Your task to perform on an android device: Go to battery settings Image 0: 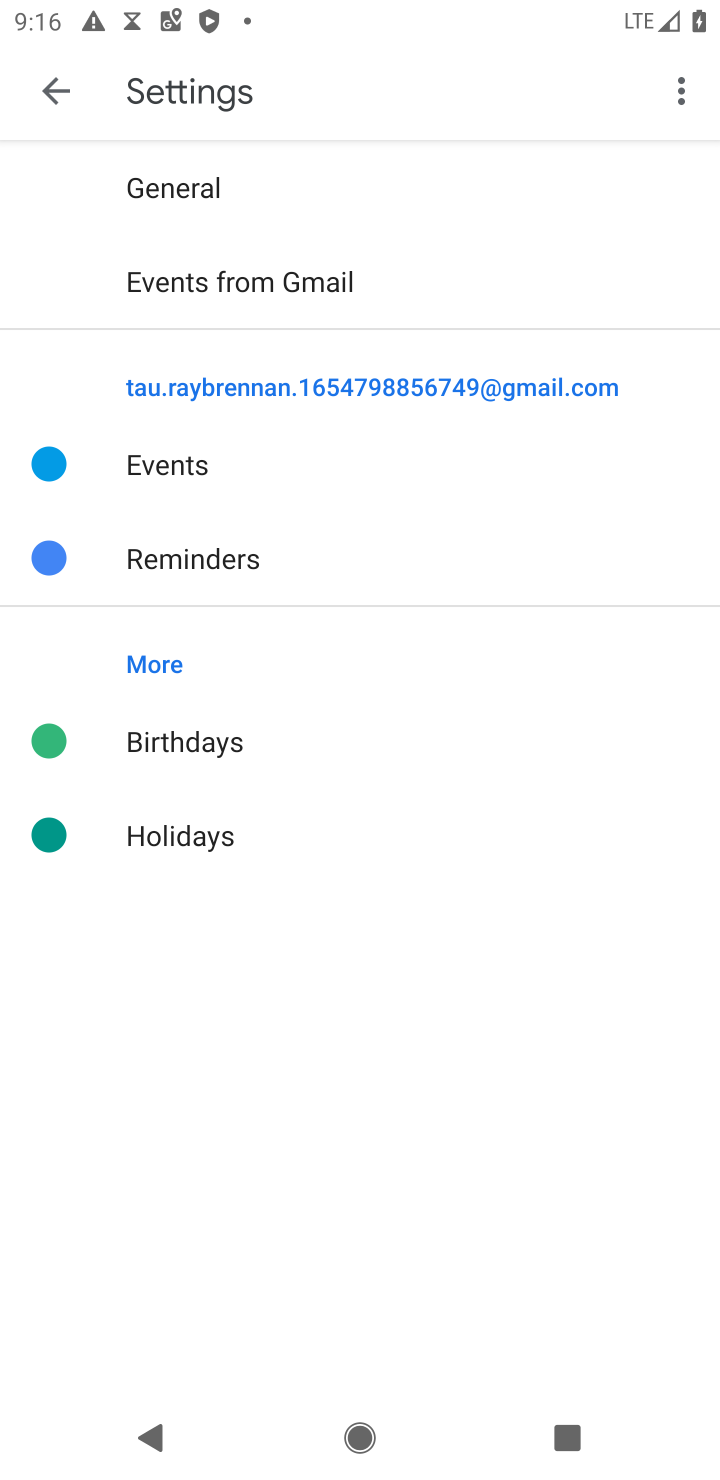
Step 0: press back button
Your task to perform on an android device: Go to battery settings Image 1: 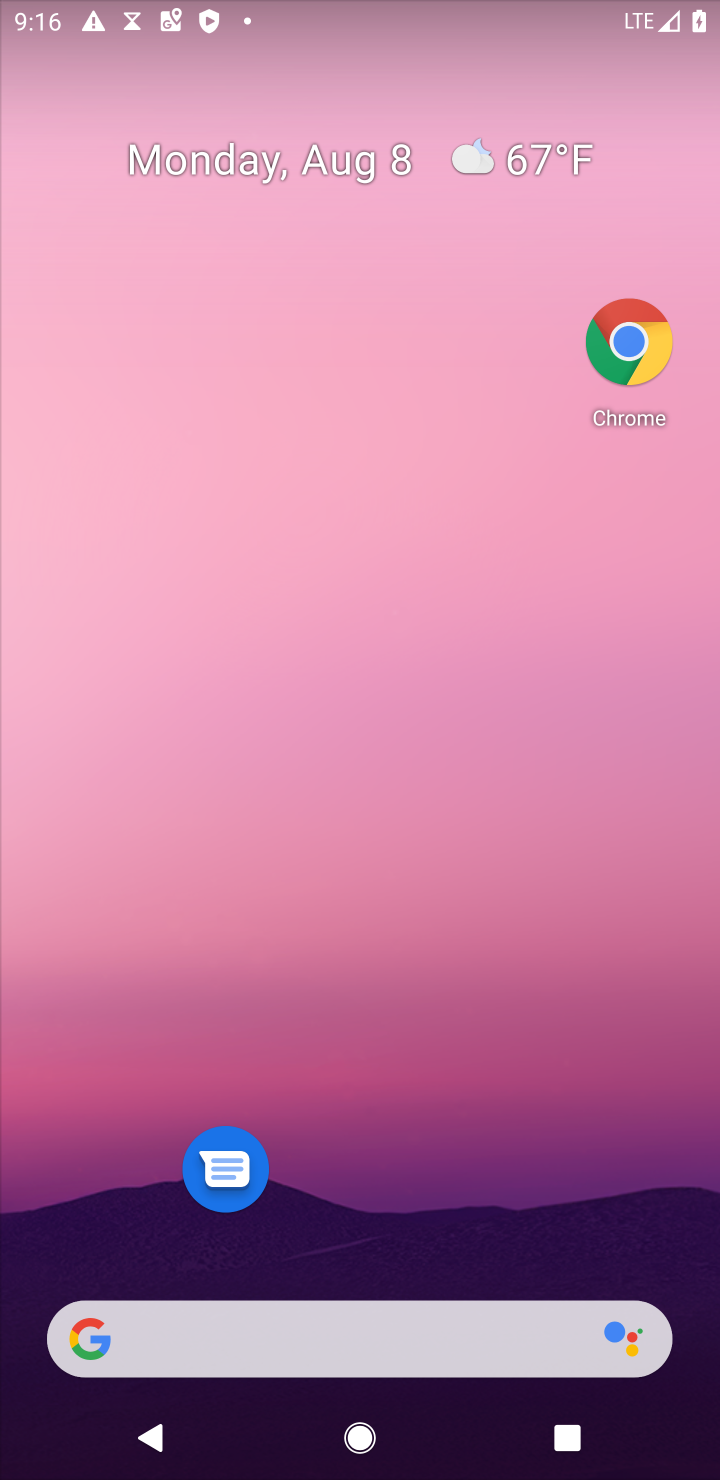
Step 1: drag from (394, 1045) to (463, 89)
Your task to perform on an android device: Go to battery settings Image 2: 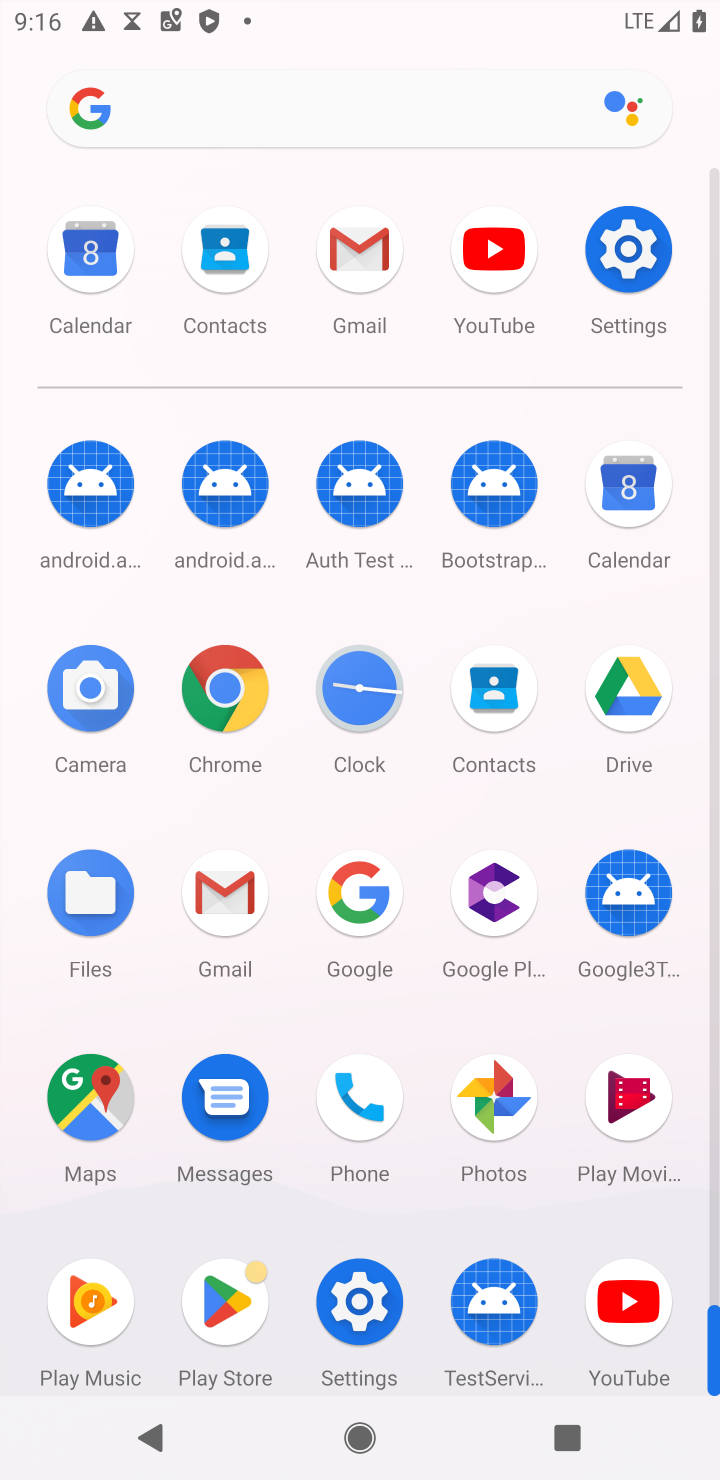
Step 2: click (656, 242)
Your task to perform on an android device: Go to battery settings Image 3: 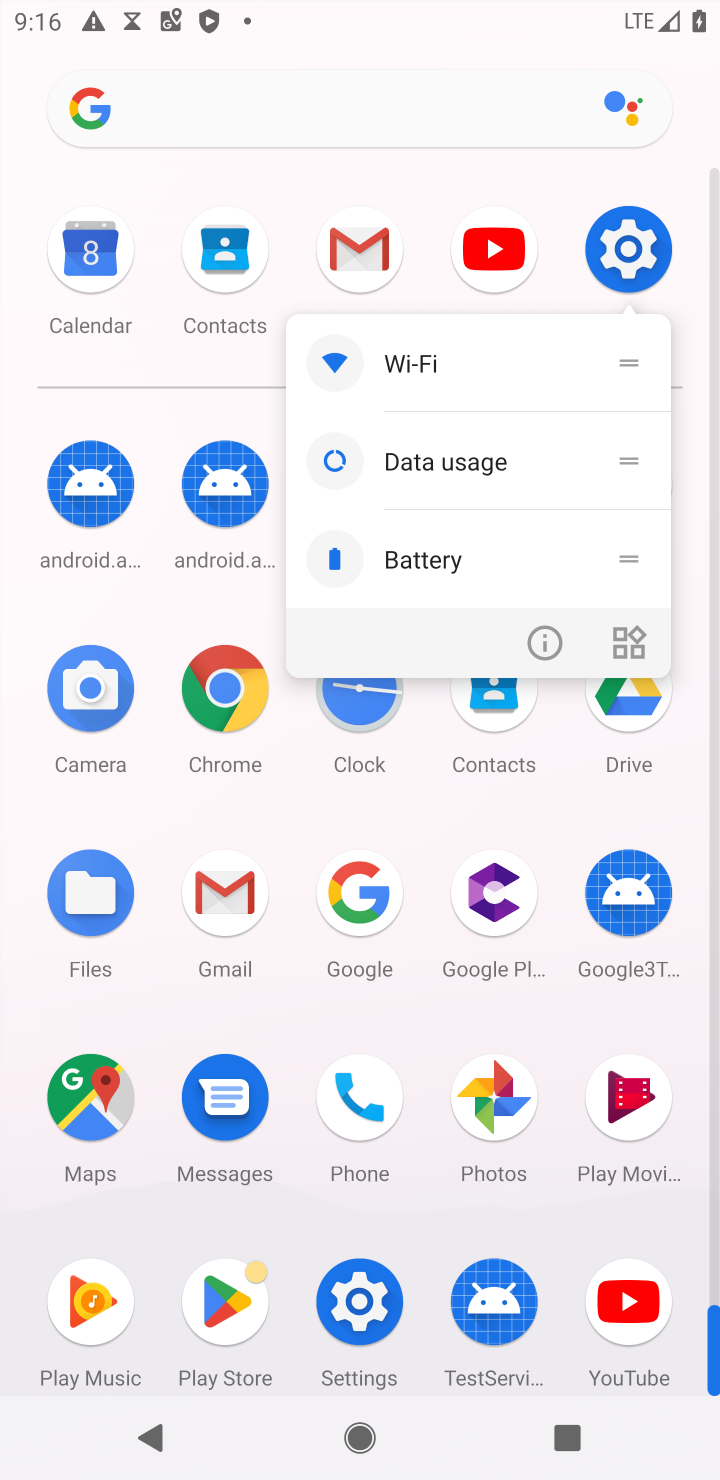
Step 3: click (637, 242)
Your task to perform on an android device: Go to battery settings Image 4: 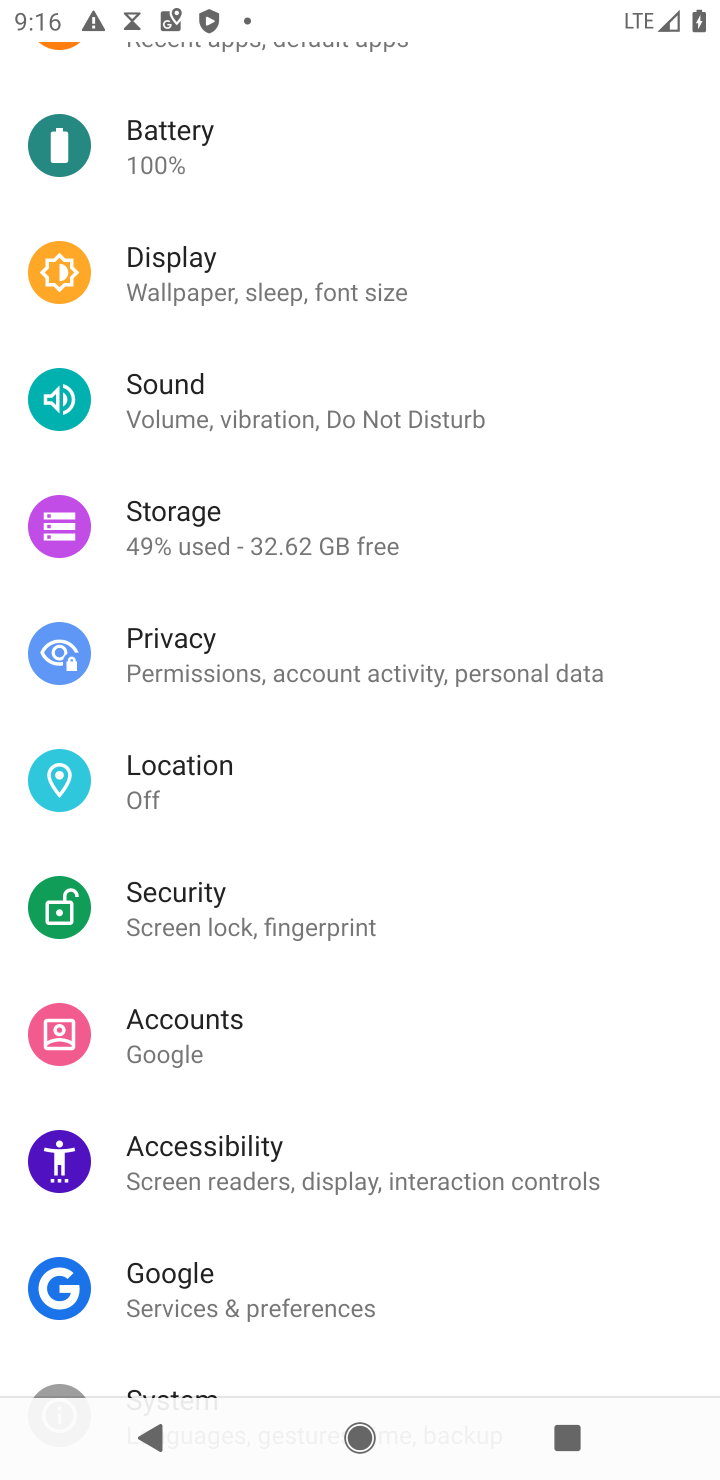
Step 4: click (200, 142)
Your task to perform on an android device: Go to battery settings Image 5: 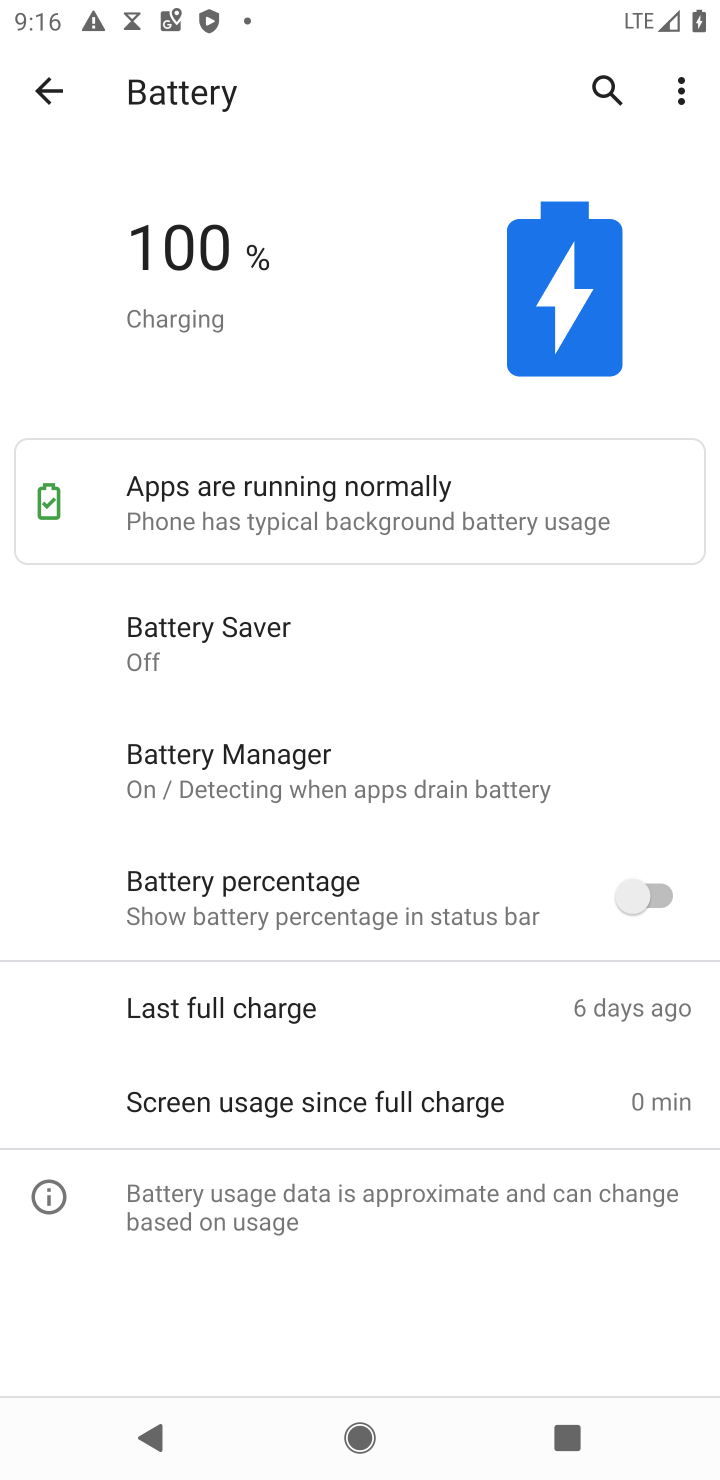
Step 5: task complete